Your task to perform on an android device: Open Google Image 0: 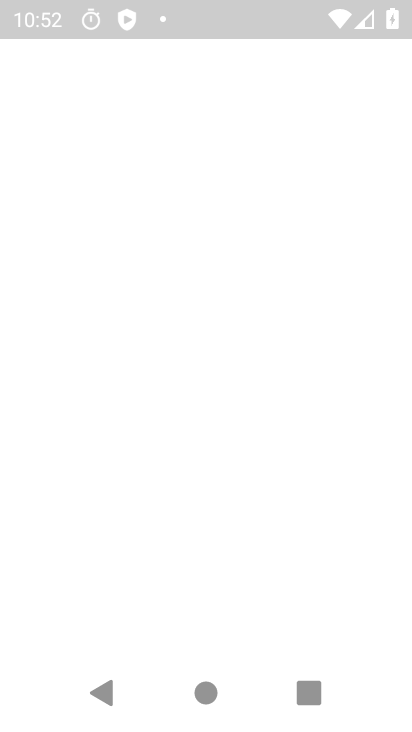
Step 0: drag from (264, 597) to (255, 350)
Your task to perform on an android device: Open Google Image 1: 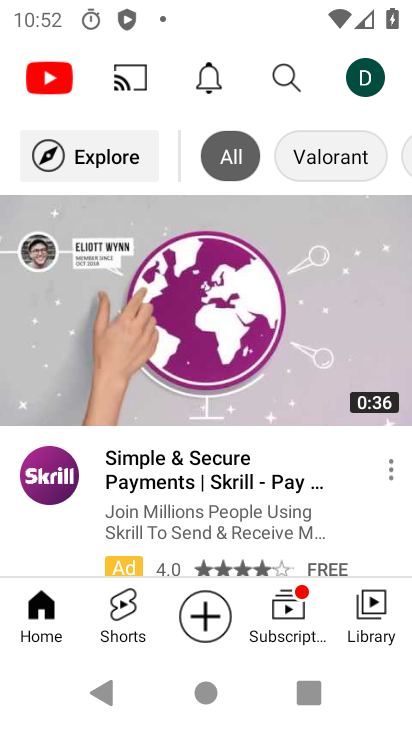
Step 1: press home button
Your task to perform on an android device: Open Google Image 2: 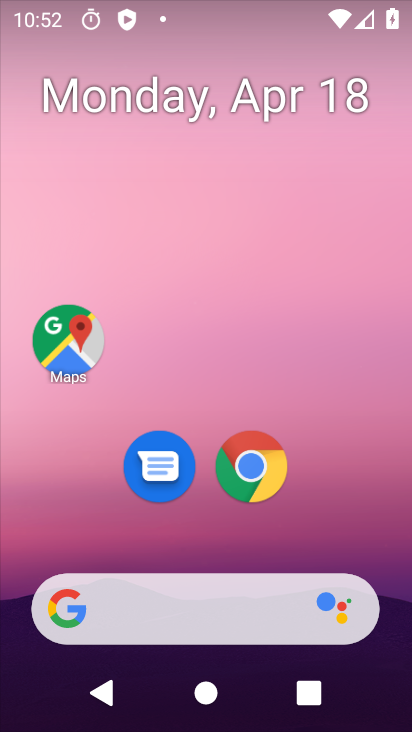
Step 2: drag from (242, 547) to (296, 0)
Your task to perform on an android device: Open Google Image 3: 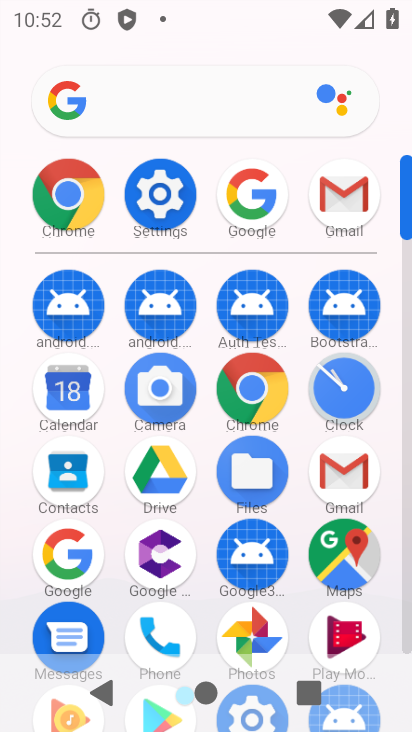
Step 3: click (71, 569)
Your task to perform on an android device: Open Google Image 4: 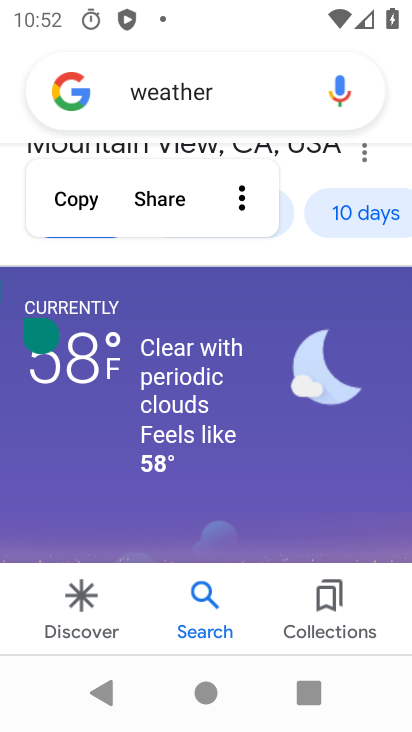
Step 4: task complete